Your task to perform on an android device: turn on translation in the chrome app Image 0: 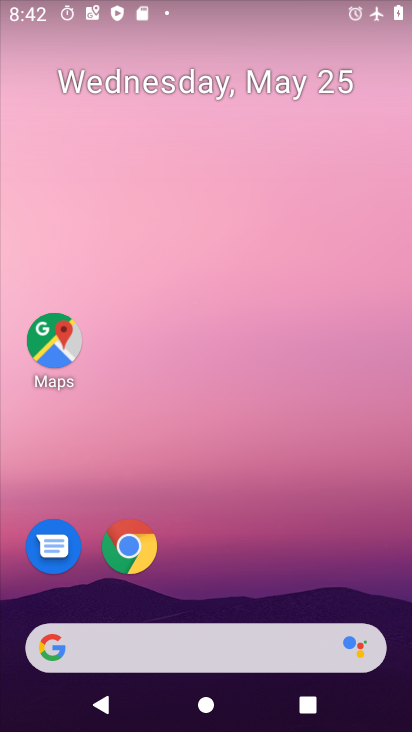
Step 0: click (126, 553)
Your task to perform on an android device: turn on translation in the chrome app Image 1: 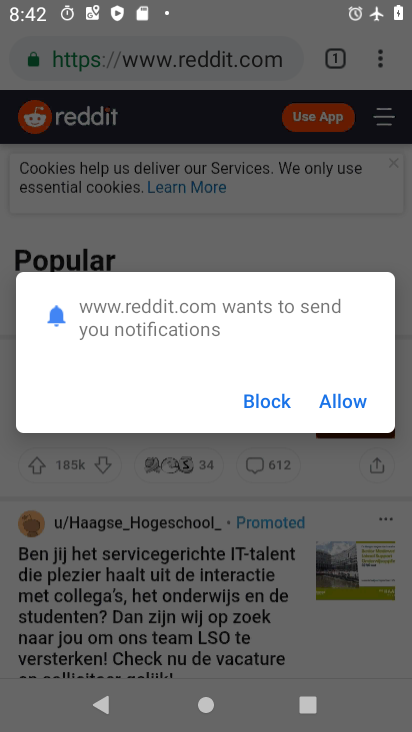
Step 1: click (261, 409)
Your task to perform on an android device: turn on translation in the chrome app Image 2: 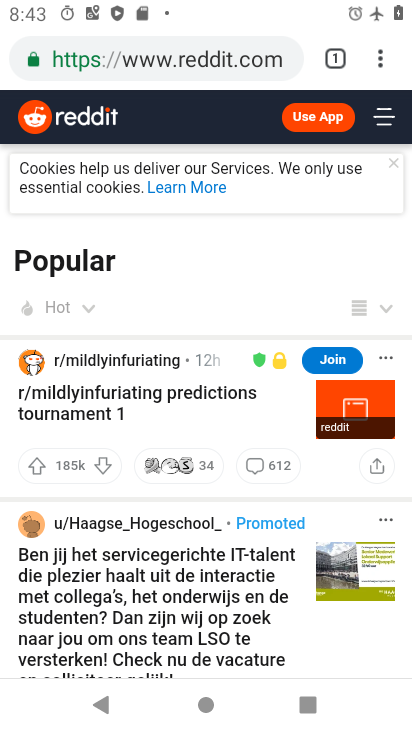
Step 2: click (383, 59)
Your task to perform on an android device: turn on translation in the chrome app Image 3: 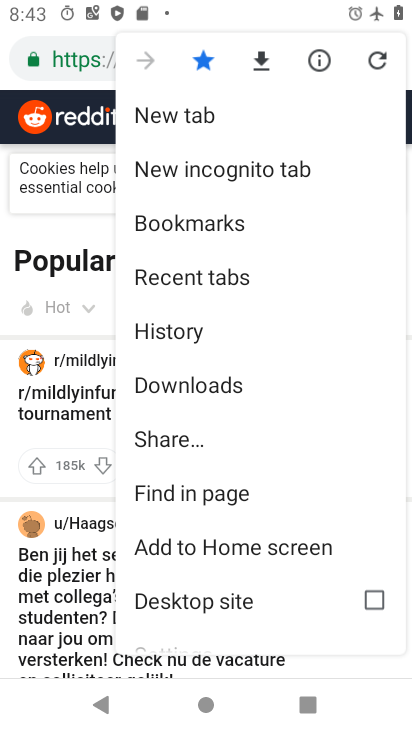
Step 3: drag from (212, 600) to (212, 310)
Your task to perform on an android device: turn on translation in the chrome app Image 4: 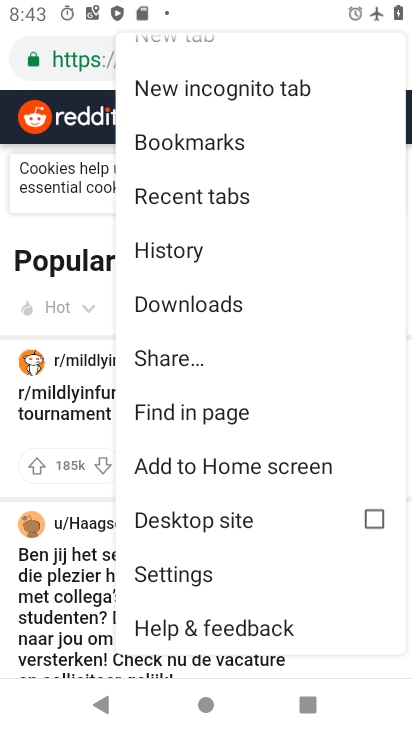
Step 4: click (184, 576)
Your task to perform on an android device: turn on translation in the chrome app Image 5: 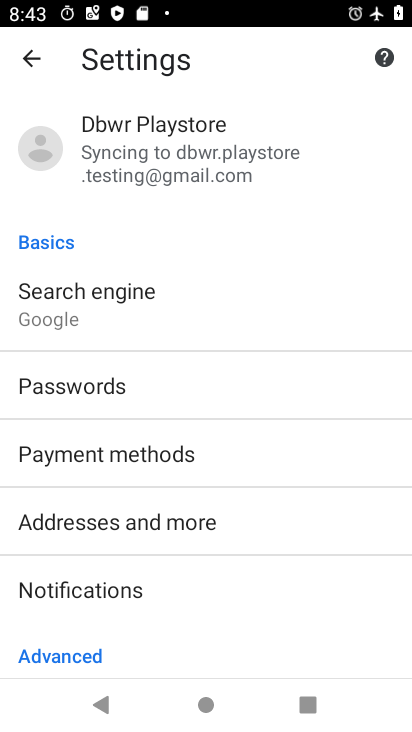
Step 5: drag from (158, 598) to (141, 296)
Your task to perform on an android device: turn on translation in the chrome app Image 6: 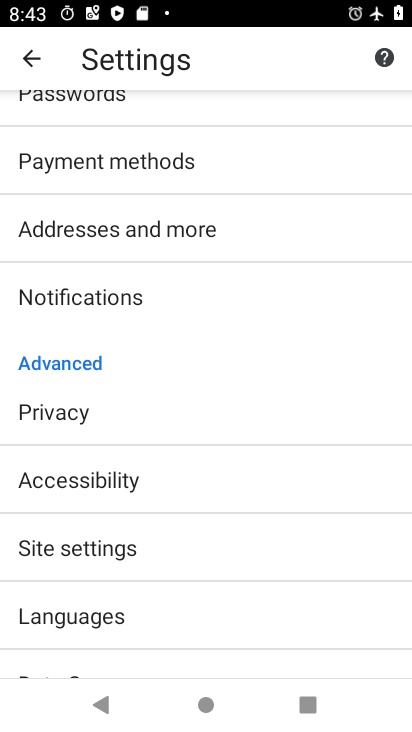
Step 6: drag from (77, 608) to (130, 313)
Your task to perform on an android device: turn on translation in the chrome app Image 7: 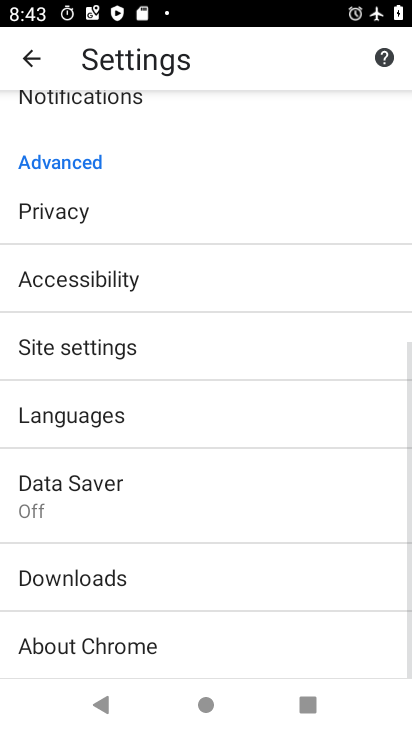
Step 7: click (98, 416)
Your task to perform on an android device: turn on translation in the chrome app Image 8: 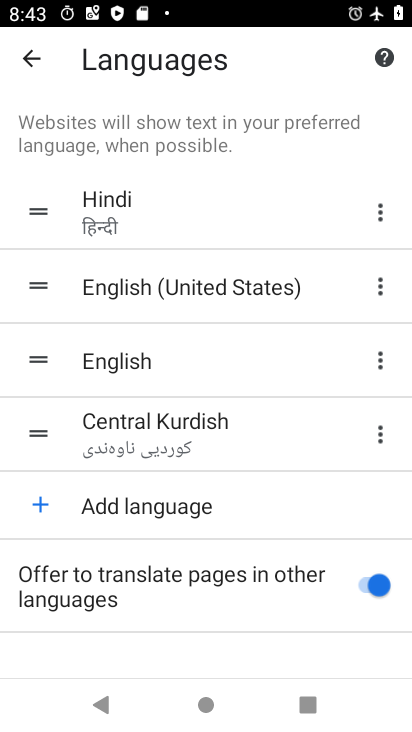
Step 8: task complete